Your task to perform on an android device: Search for Mexican restaurants on Maps Image 0: 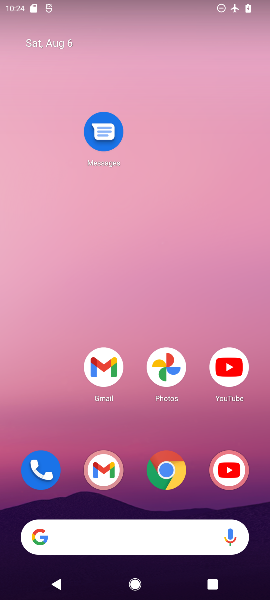
Step 0: drag from (158, 434) to (179, 37)
Your task to perform on an android device: Search for Mexican restaurants on Maps Image 1: 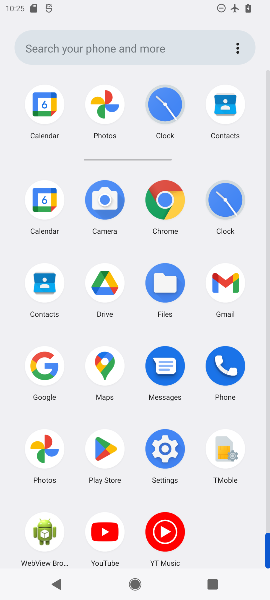
Step 1: click (110, 377)
Your task to perform on an android device: Search for Mexican restaurants on Maps Image 2: 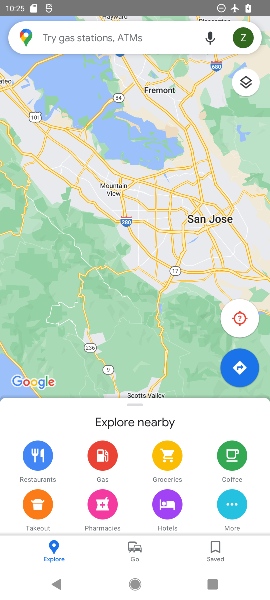
Step 2: click (121, 36)
Your task to perform on an android device: Search for Mexican restaurants on Maps Image 3: 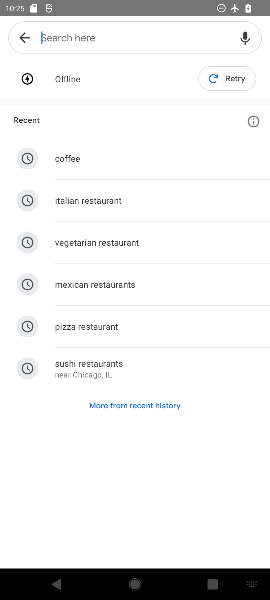
Step 3: click (100, 285)
Your task to perform on an android device: Search for Mexican restaurants on Maps Image 4: 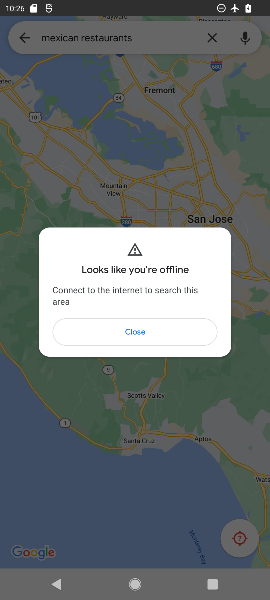
Step 4: click (114, 326)
Your task to perform on an android device: Search for Mexican restaurants on Maps Image 5: 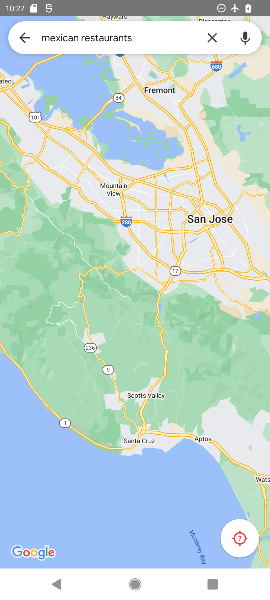
Step 5: task complete